Your task to perform on an android device: turn on notifications settings in the gmail app Image 0: 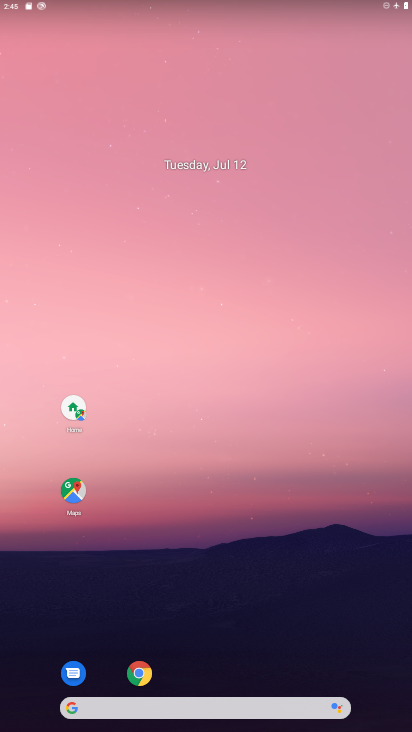
Step 0: drag from (301, 616) to (242, 222)
Your task to perform on an android device: turn on notifications settings in the gmail app Image 1: 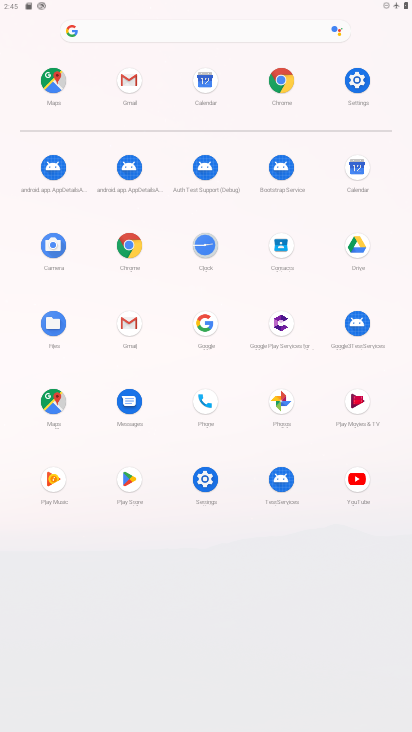
Step 1: click (124, 81)
Your task to perform on an android device: turn on notifications settings in the gmail app Image 2: 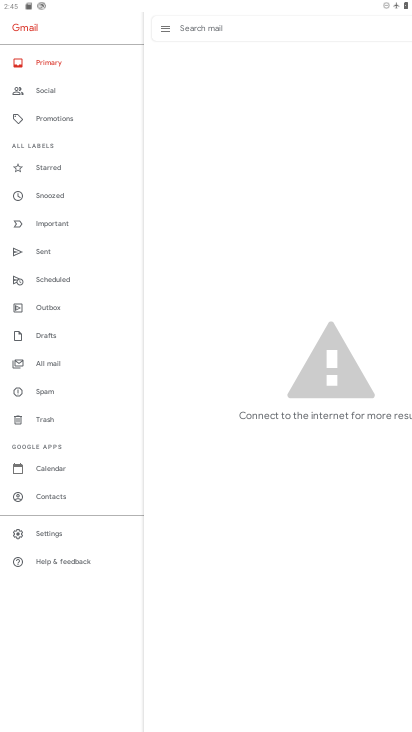
Step 2: click (45, 539)
Your task to perform on an android device: turn on notifications settings in the gmail app Image 3: 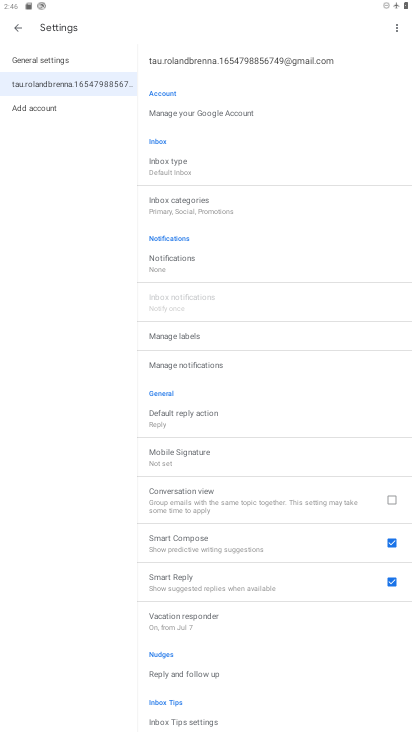
Step 3: click (195, 262)
Your task to perform on an android device: turn on notifications settings in the gmail app Image 4: 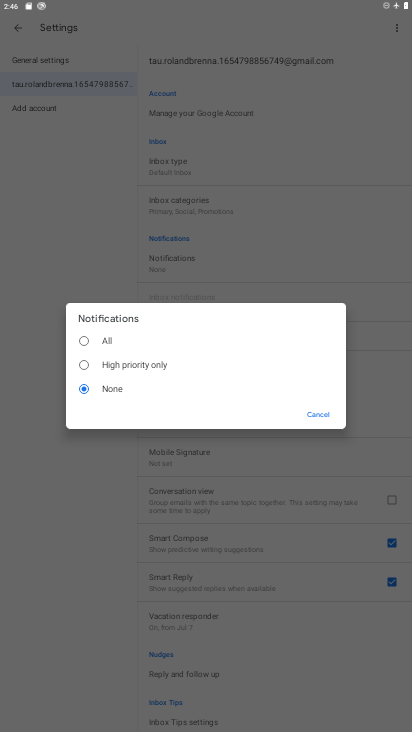
Step 4: click (101, 337)
Your task to perform on an android device: turn on notifications settings in the gmail app Image 5: 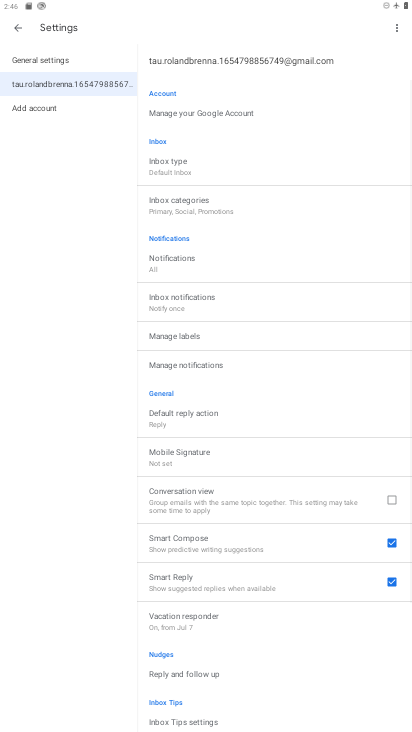
Step 5: task complete